Your task to perform on an android device: open wifi settings Image 0: 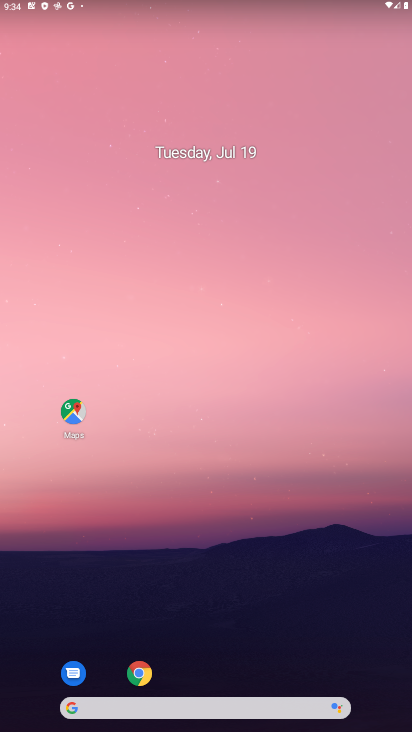
Step 0: drag from (262, 666) to (262, 255)
Your task to perform on an android device: open wifi settings Image 1: 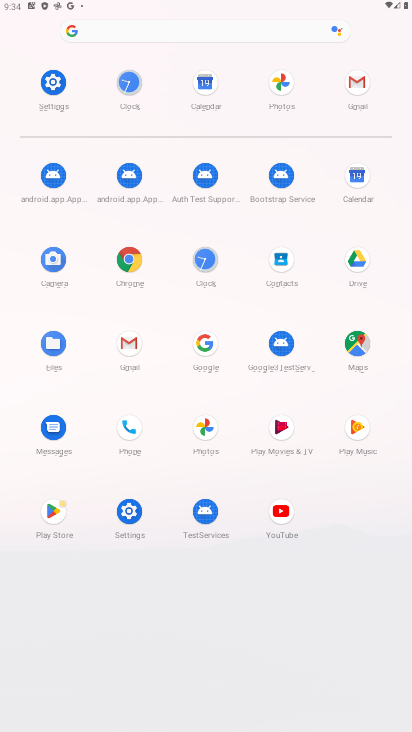
Step 1: click (53, 100)
Your task to perform on an android device: open wifi settings Image 2: 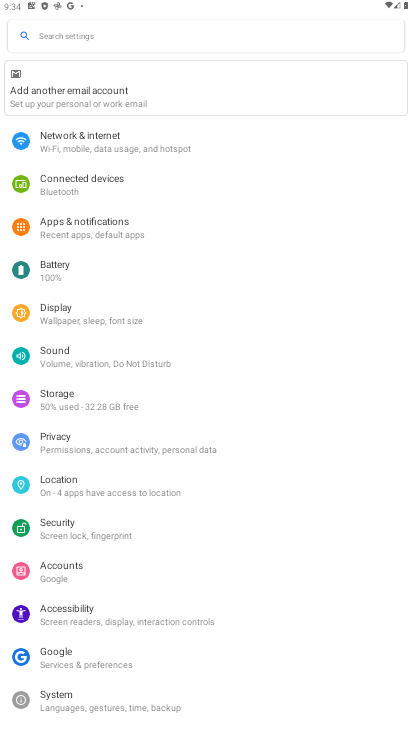
Step 2: click (126, 137)
Your task to perform on an android device: open wifi settings Image 3: 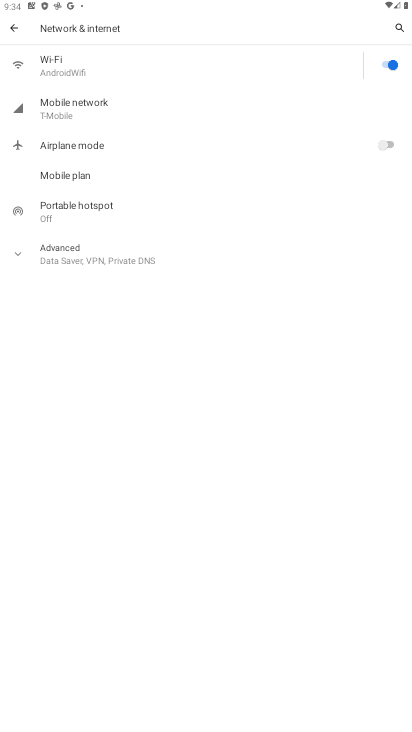
Step 3: task complete